Your task to perform on an android device: Add "jbl flip 4" to the cart on target Image 0: 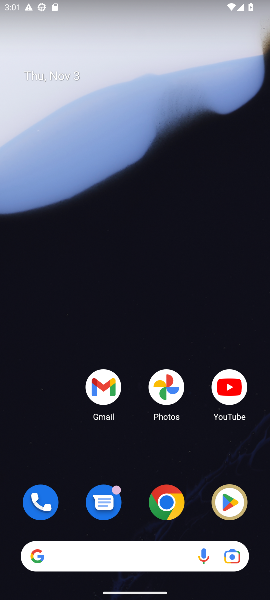
Step 0: drag from (121, 510) to (191, 96)
Your task to perform on an android device: Add "jbl flip 4" to the cart on target Image 1: 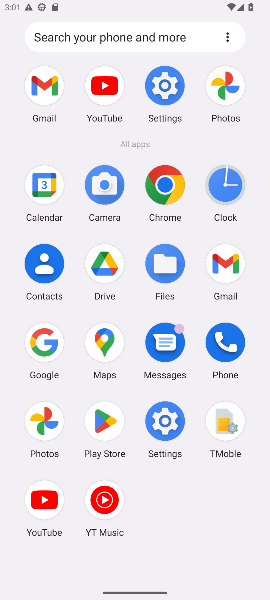
Step 1: click (59, 350)
Your task to perform on an android device: Add "jbl flip 4" to the cart on target Image 2: 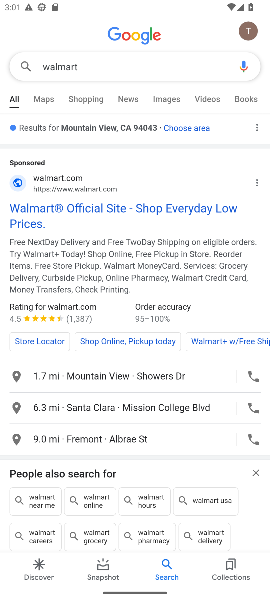
Step 2: click (180, 63)
Your task to perform on an android device: Add "jbl flip 4" to the cart on target Image 3: 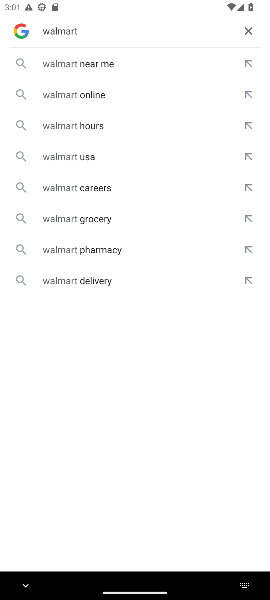
Step 3: click (244, 27)
Your task to perform on an android device: Add "jbl flip 4" to the cart on target Image 4: 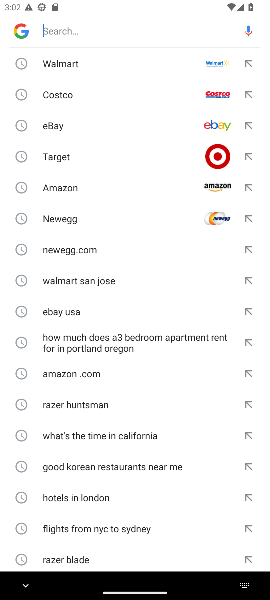
Step 4: click (197, 158)
Your task to perform on an android device: Add "jbl flip 4" to the cart on target Image 5: 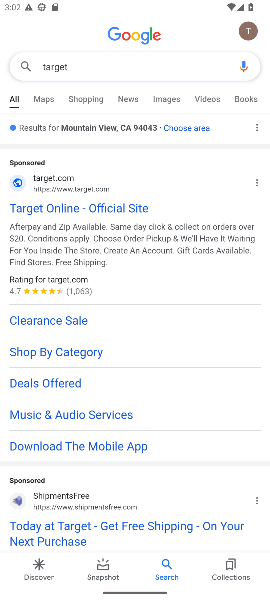
Step 5: click (103, 203)
Your task to perform on an android device: Add "jbl flip 4" to the cart on target Image 6: 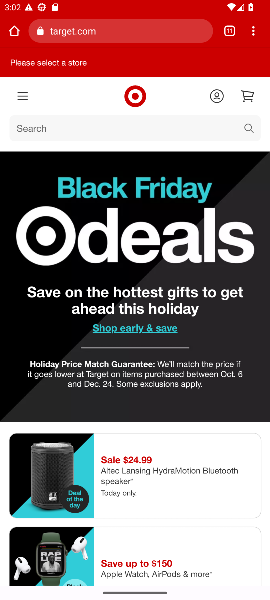
Step 6: click (94, 127)
Your task to perform on an android device: Add "jbl flip 4" to the cart on target Image 7: 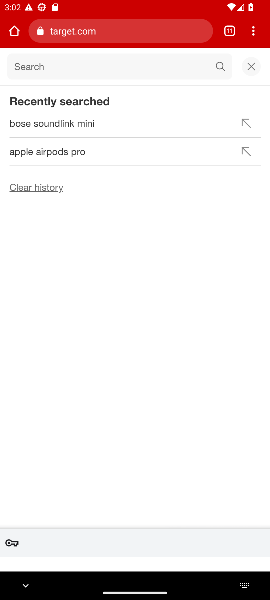
Step 7: type "jbl flip"
Your task to perform on an android device: Add "jbl flip 4" to the cart on target Image 8: 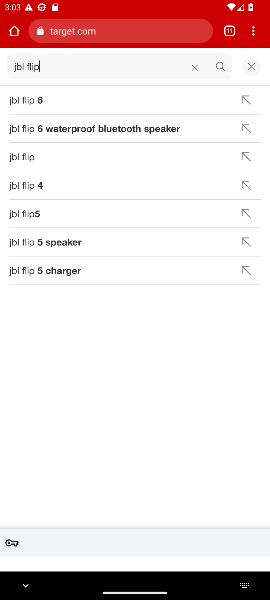
Step 8: click (58, 182)
Your task to perform on an android device: Add "jbl flip 4" to the cart on target Image 9: 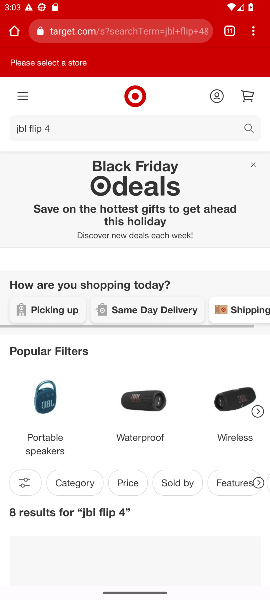
Step 9: drag from (83, 473) to (129, 251)
Your task to perform on an android device: Add "jbl flip 4" to the cart on target Image 10: 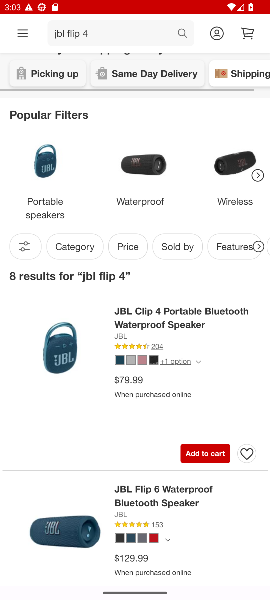
Step 10: click (138, 319)
Your task to perform on an android device: Add "jbl flip 4" to the cart on target Image 11: 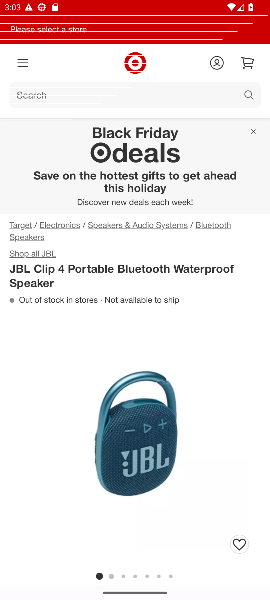
Step 11: drag from (149, 476) to (163, 176)
Your task to perform on an android device: Add "jbl flip 4" to the cart on target Image 12: 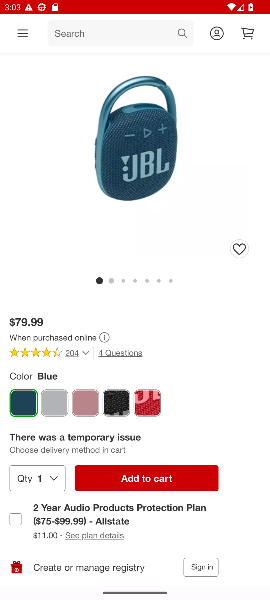
Step 12: click (172, 480)
Your task to perform on an android device: Add "jbl flip 4" to the cart on target Image 13: 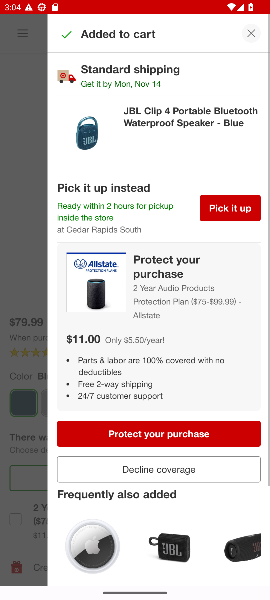
Step 13: task complete